Your task to perform on an android device: set the timer Image 0: 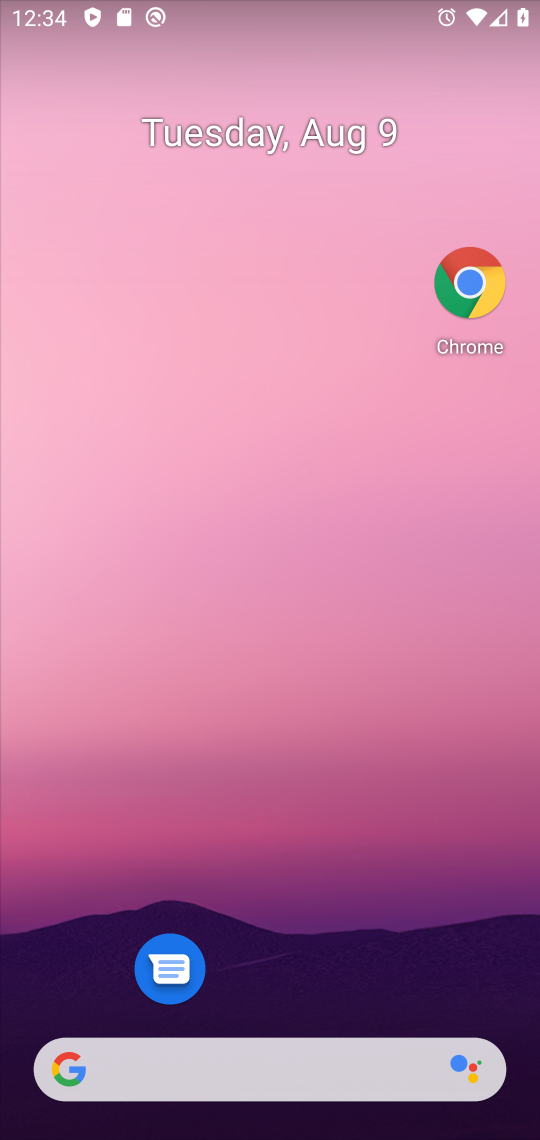
Step 0: drag from (324, 964) to (484, 78)
Your task to perform on an android device: set the timer Image 1: 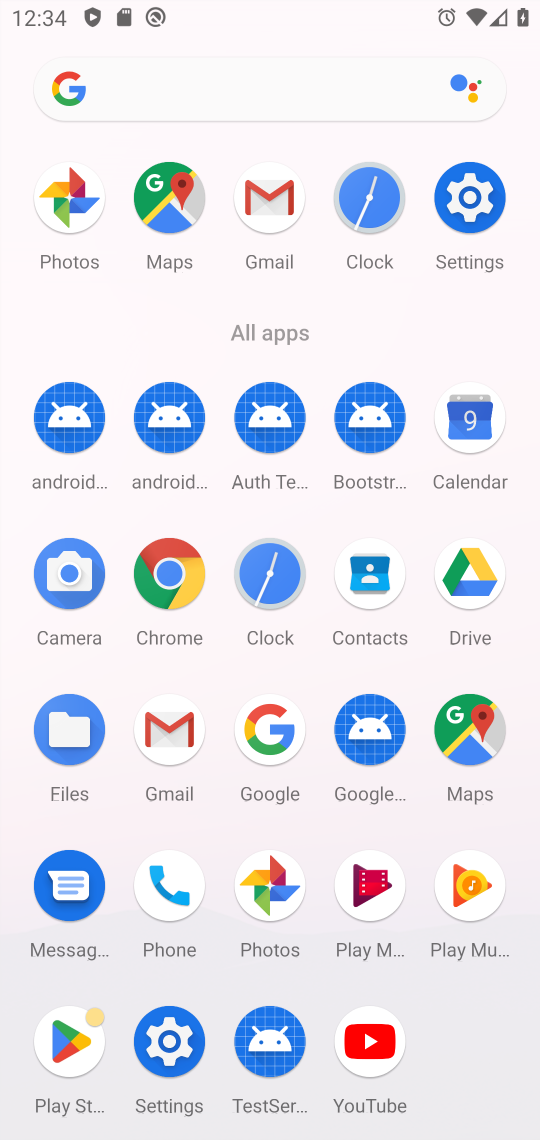
Step 1: click (248, 556)
Your task to perform on an android device: set the timer Image 2: 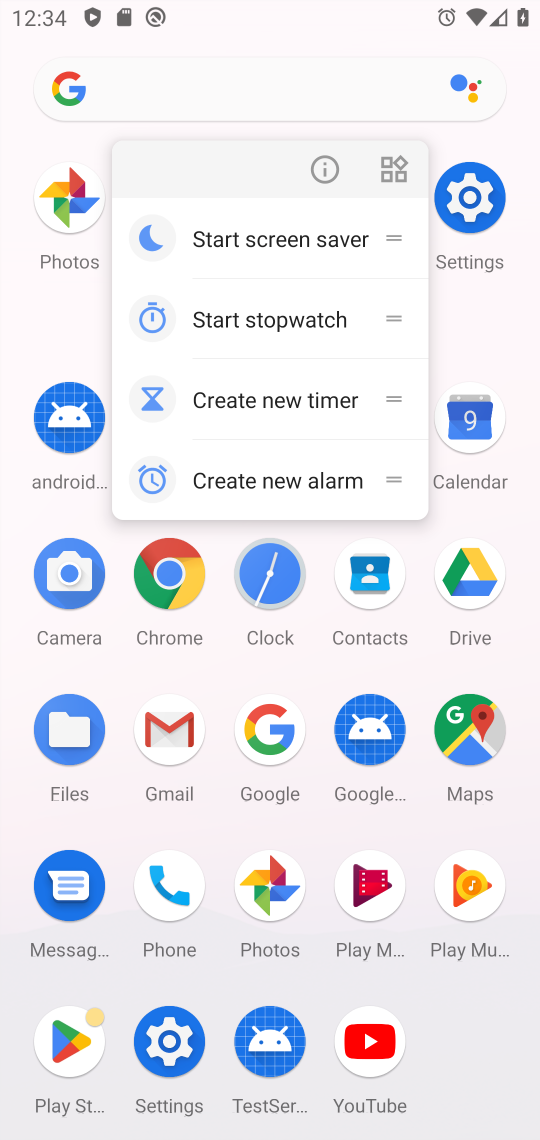
Step 2: click (321, 148)
Your task to perform on an android device: set the timer Image 3: 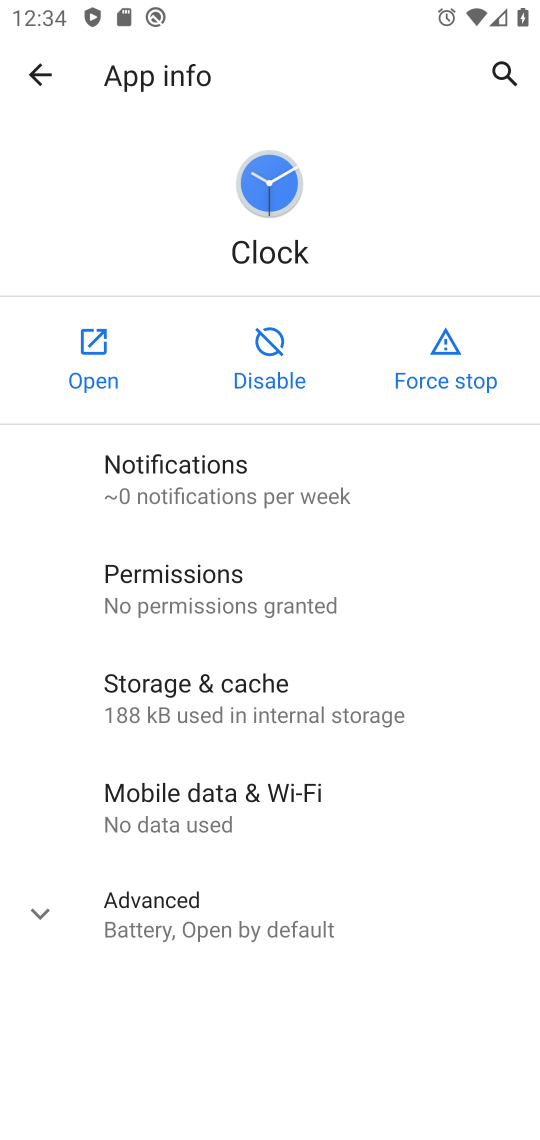
Step 3: click (93, 350)
Your task to perform on an android device: set the timer Image 4: 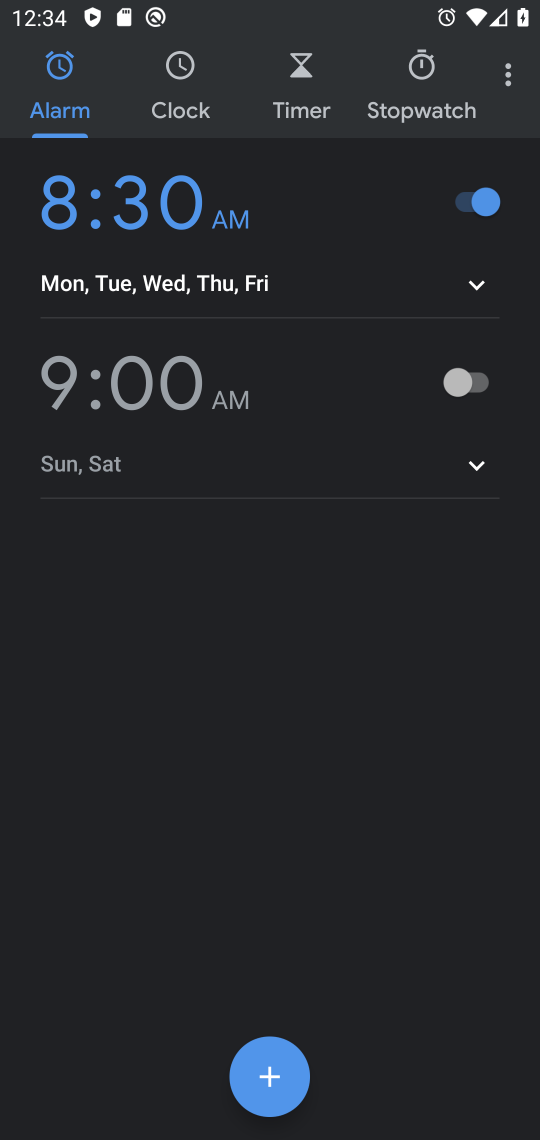
Step 4: click (285, 94)
Your task to perform on an android device: set the timer Image 5: 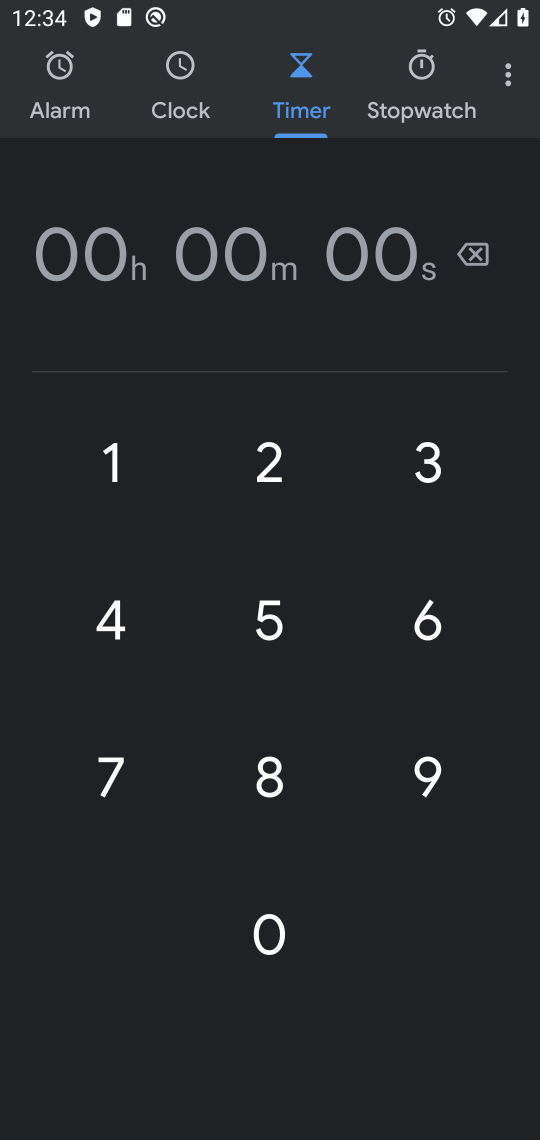
Step 5: click (280, 458)
Your task to perform on an android device: set the timer Image 6: 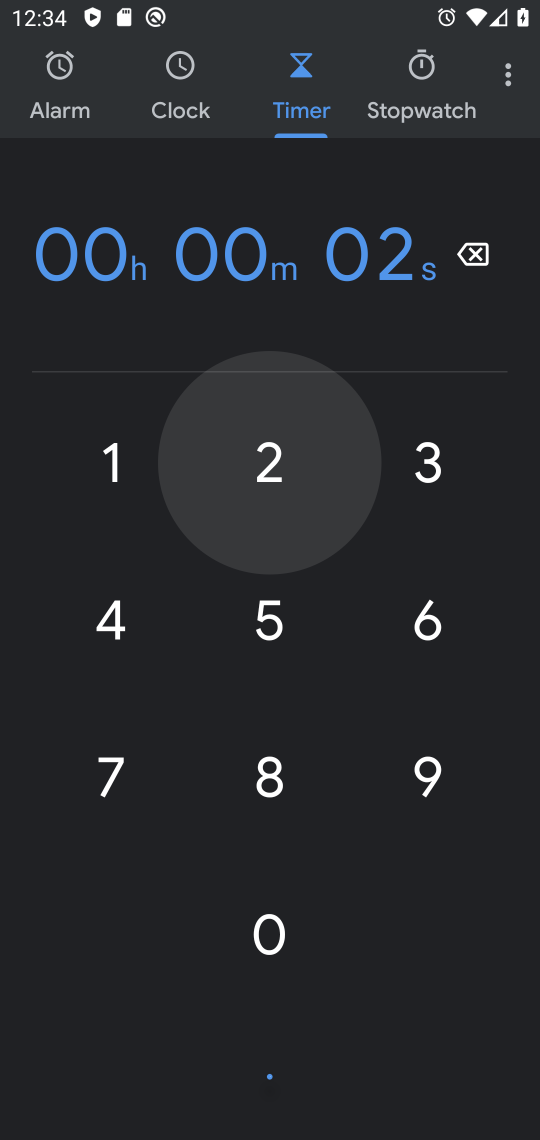
Step 6: click (409, 452)
Your task to perform on an android device: set the timer Image 7: 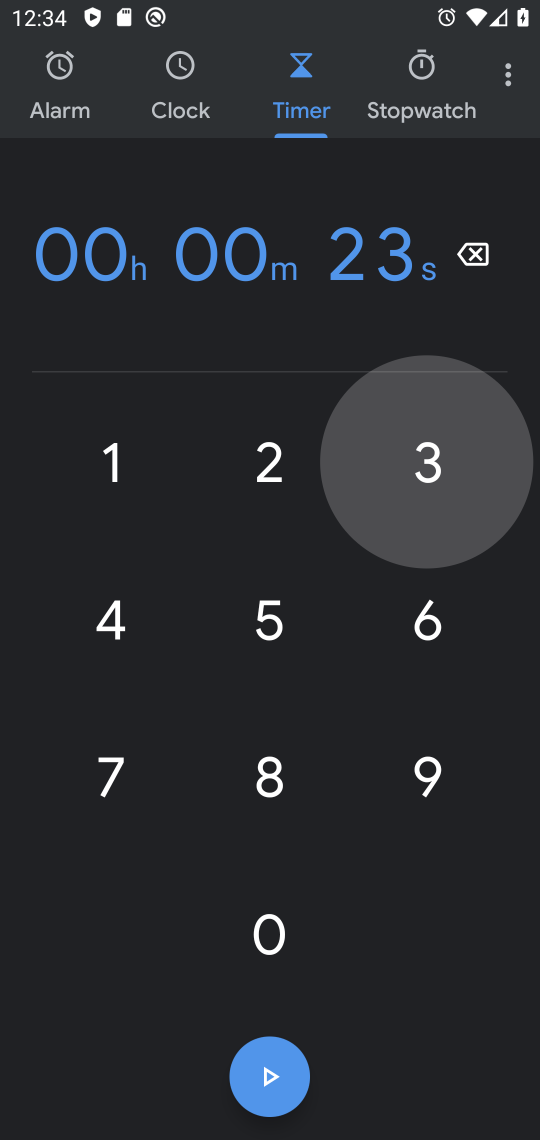
Step 7: click (232, 632)
Your task to perform on an android device: set the timer Image 8: 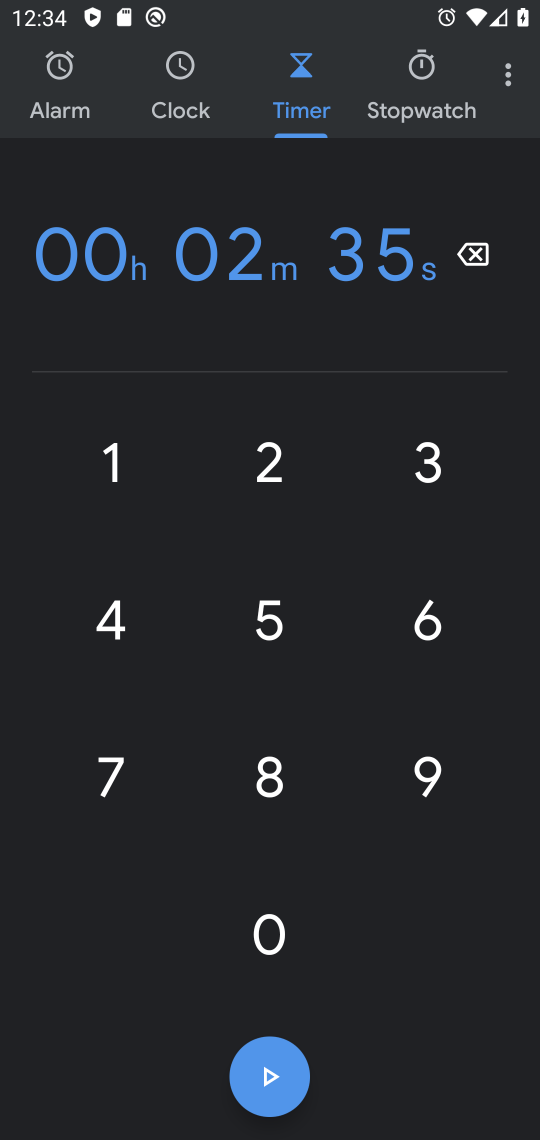
Step 8: click (244, 1098)
Your task to perform on an android device: set the timer Image 9: 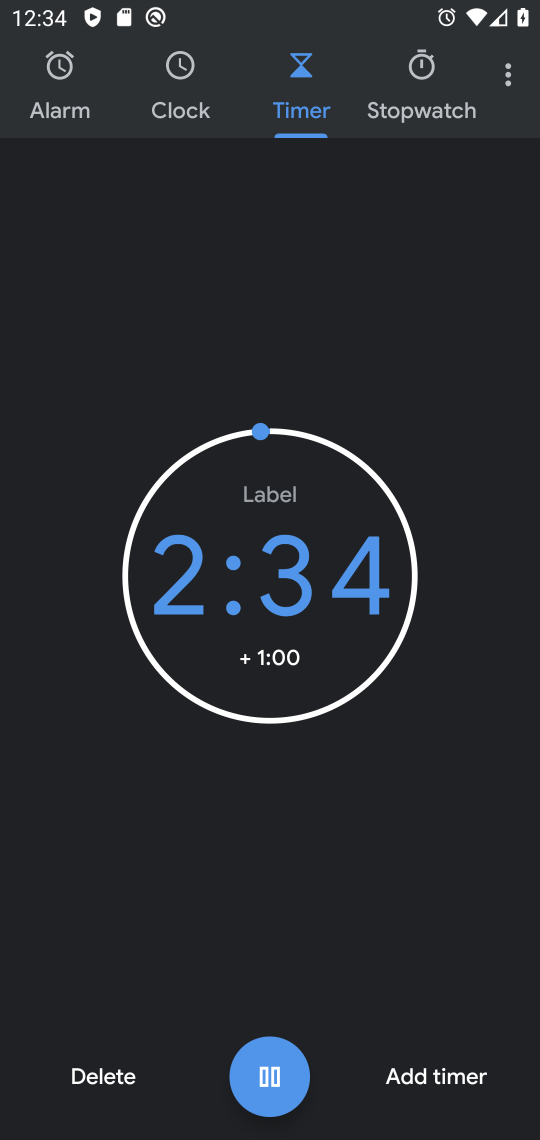
Step 9: task complete